Your task to perform on an android device: Open Amazon Image 0: 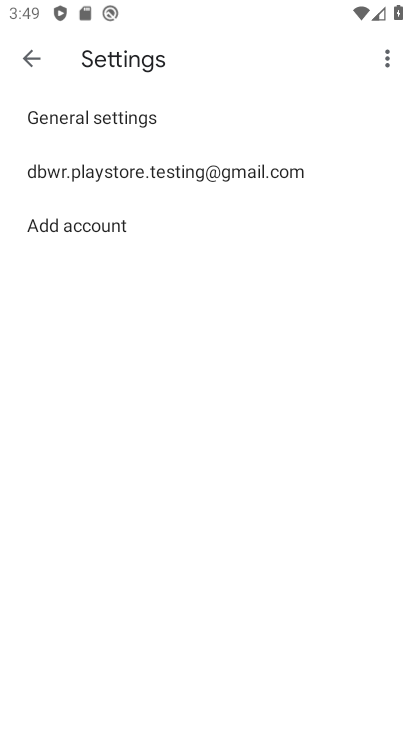
Step 0: press home button
Your task to perform on an android device: Open Amazon Image 1: 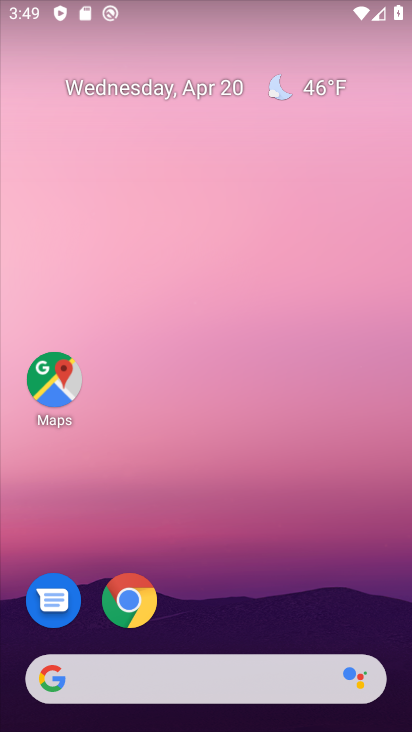
Step 1: click (136, 605)
Your task to perform on an android device: Open Amazon Image 2: 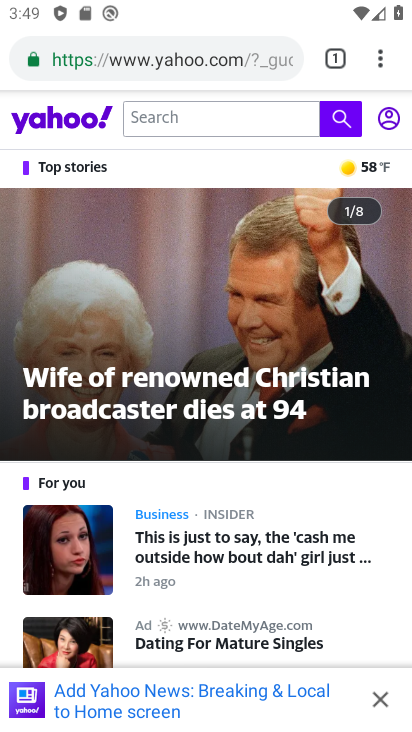
Step 2: click (328, 49)
Your task to perform on an android device: Open Amazon Image 3: 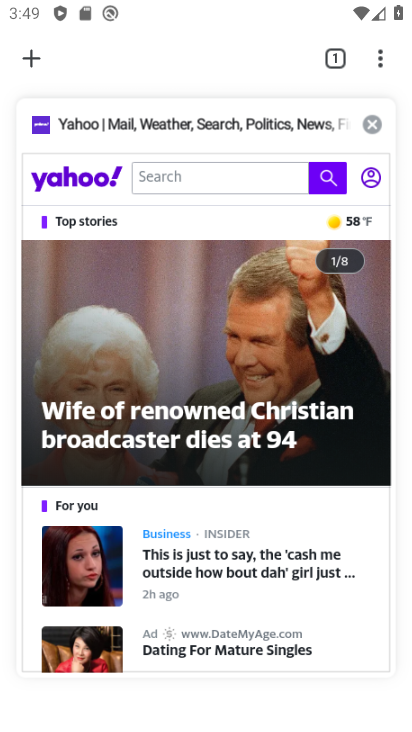
Step 3: click (29, 52)
Your task to perform on an android device: Open Amazon Image 4: 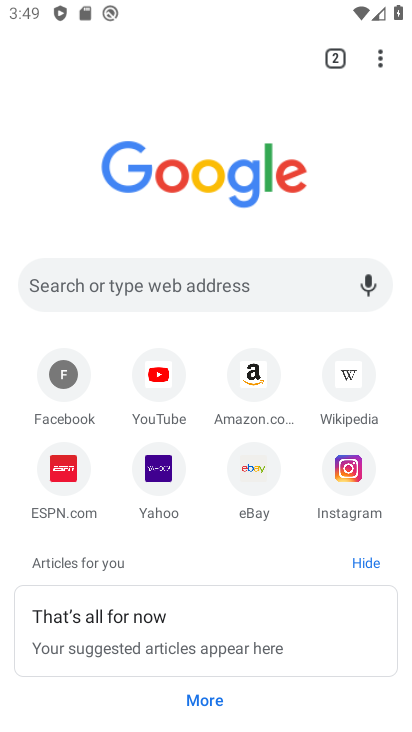
Step 4: click (257, 379)
Your task to perform on an android device: Open Amazon Image 5: 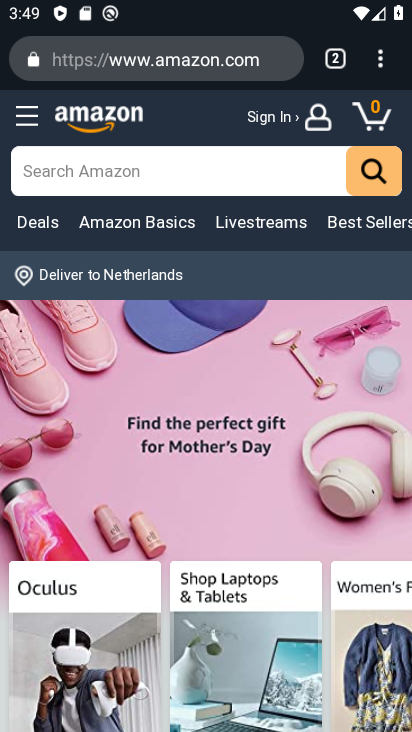
Step 5: task complete